Your task to perform on an android device: Search for panasonic triple a on target.com, select the first entry, add it to the cart, then select checkout. Image 0: 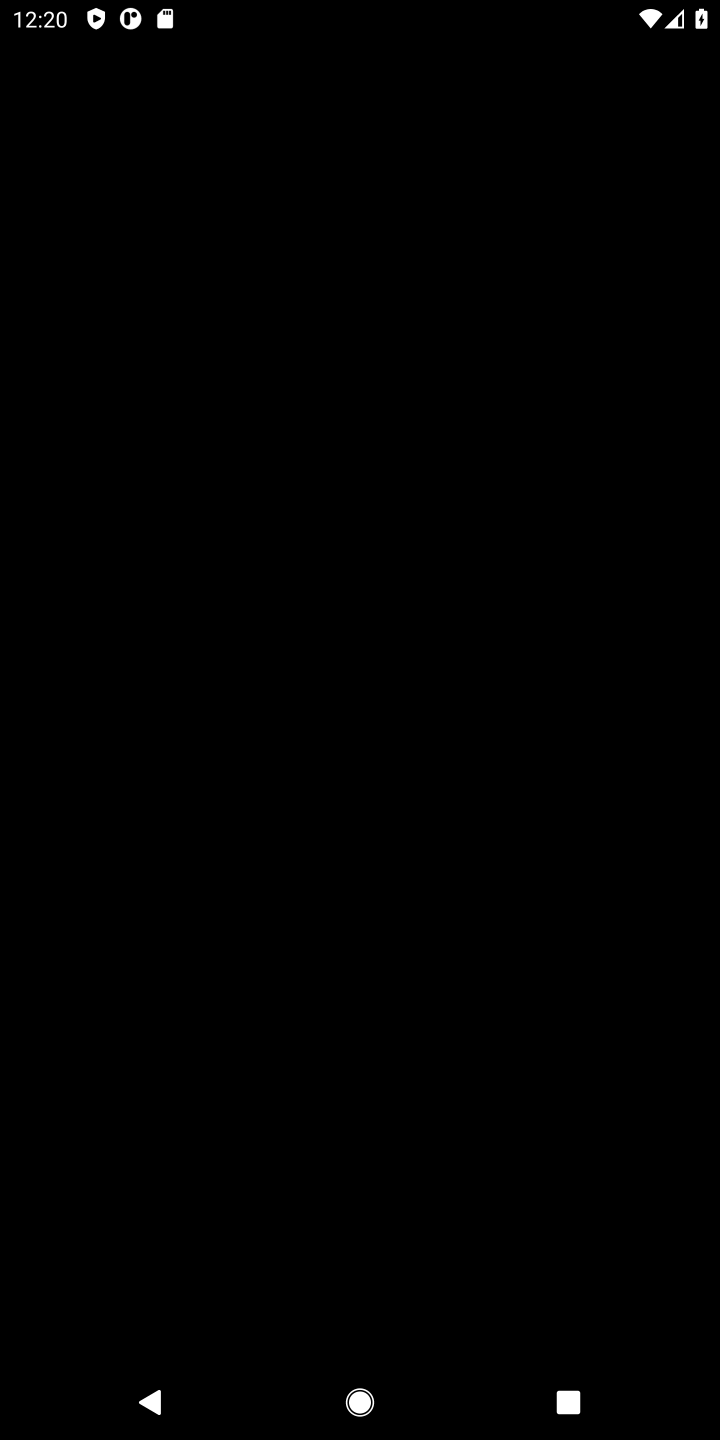
Step 0: press home button
Your task to perform on an android device: Search for panasonic triple a on target.com, select the first entry, add it to the cart, then select checkout. Image 1: 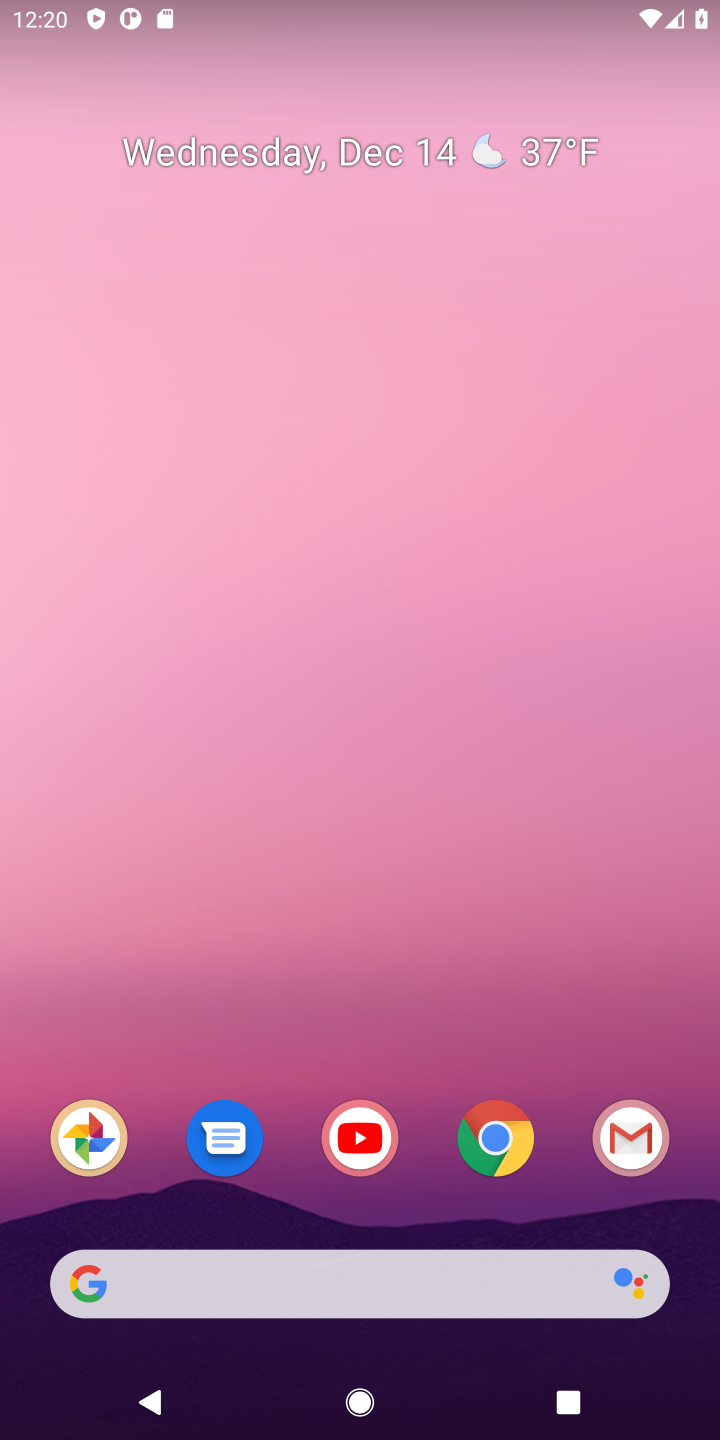
Step 1: click (513, 1142)
Your task to perform on an android device: Search for panasonic triple a on target.com, select the first entry, add it to the cart, then select checkout. Image 2: 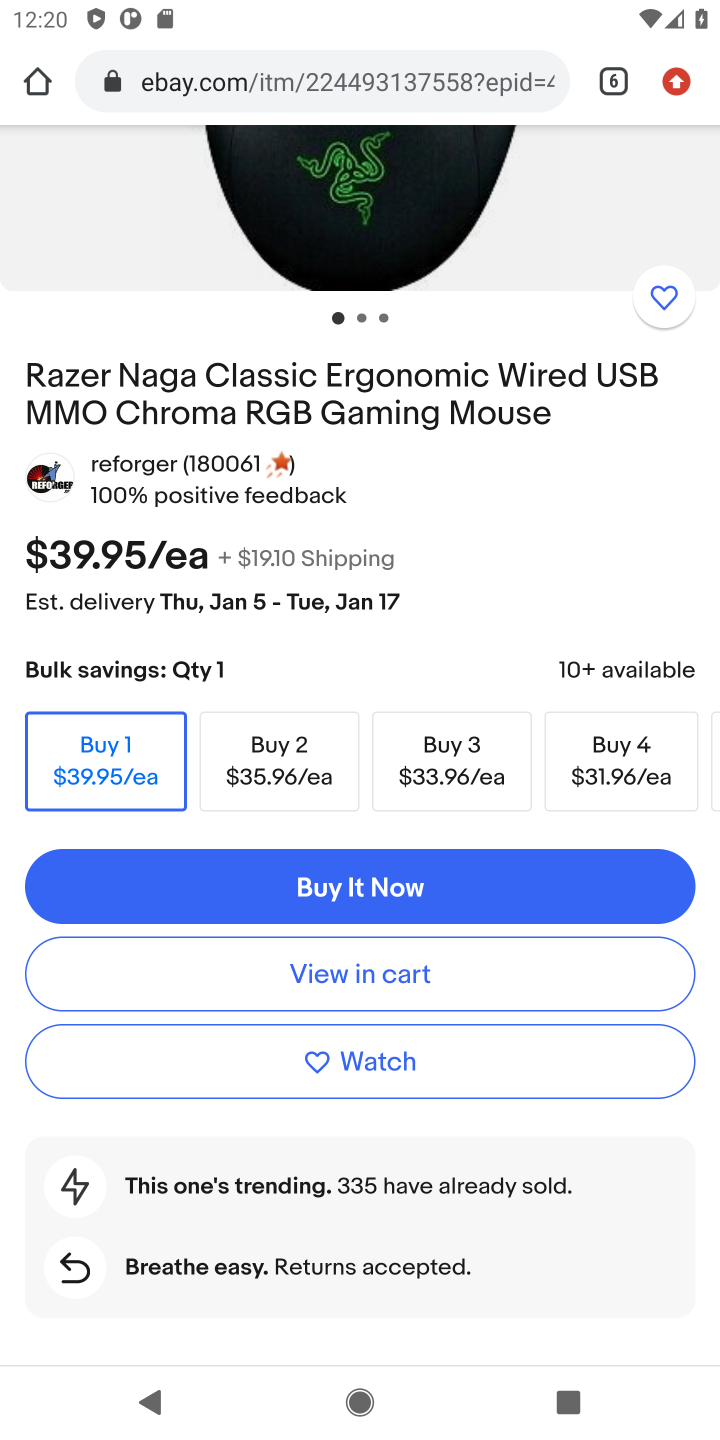
Step 2: click (620, 82)
Your task to perform on an android device: Search for panasonic triple a on target.com, select the first entry, add it to the cart, then select checkout. Image 3: 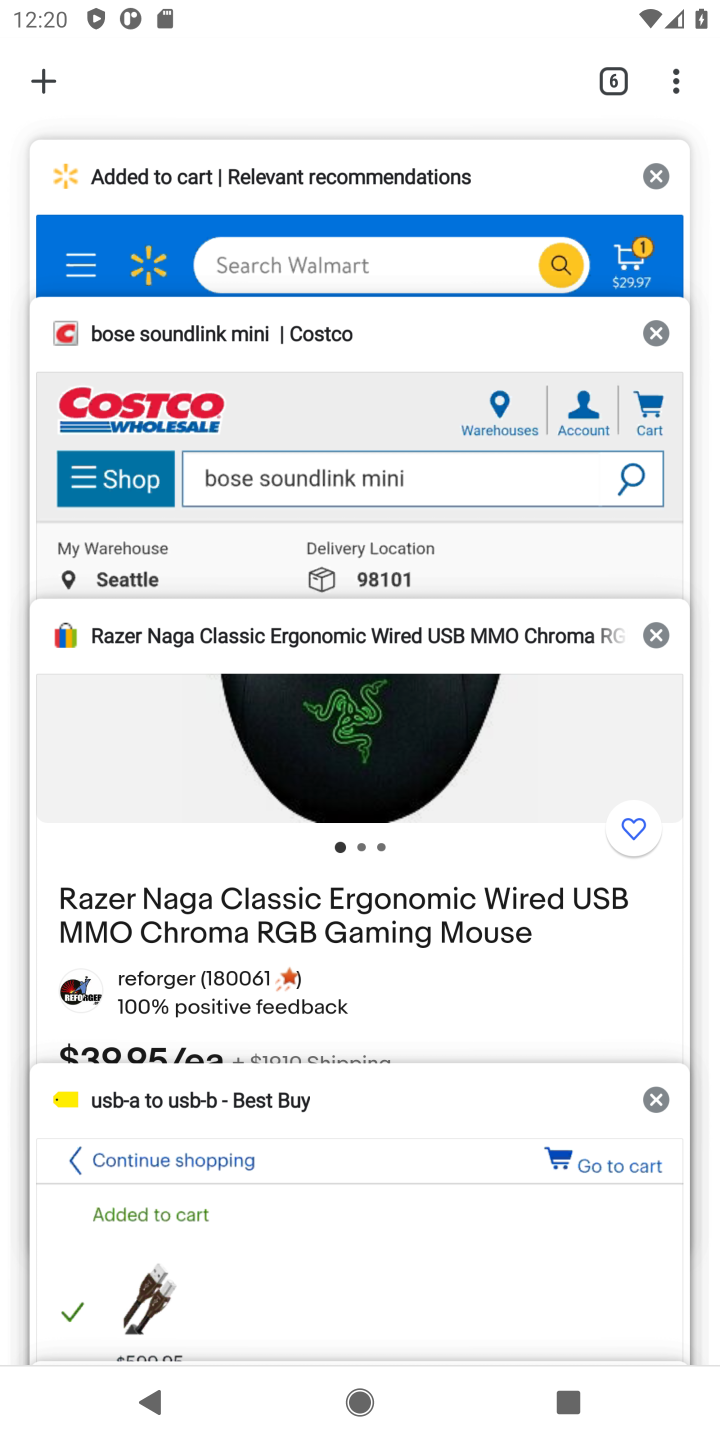
Step 3: drag from (262, 1187) to (304, 666)
Your task to perform on an android device: Search for panasonic triple a on target.com, select the first entry, add it to the cart, then select checkout. Image 4: 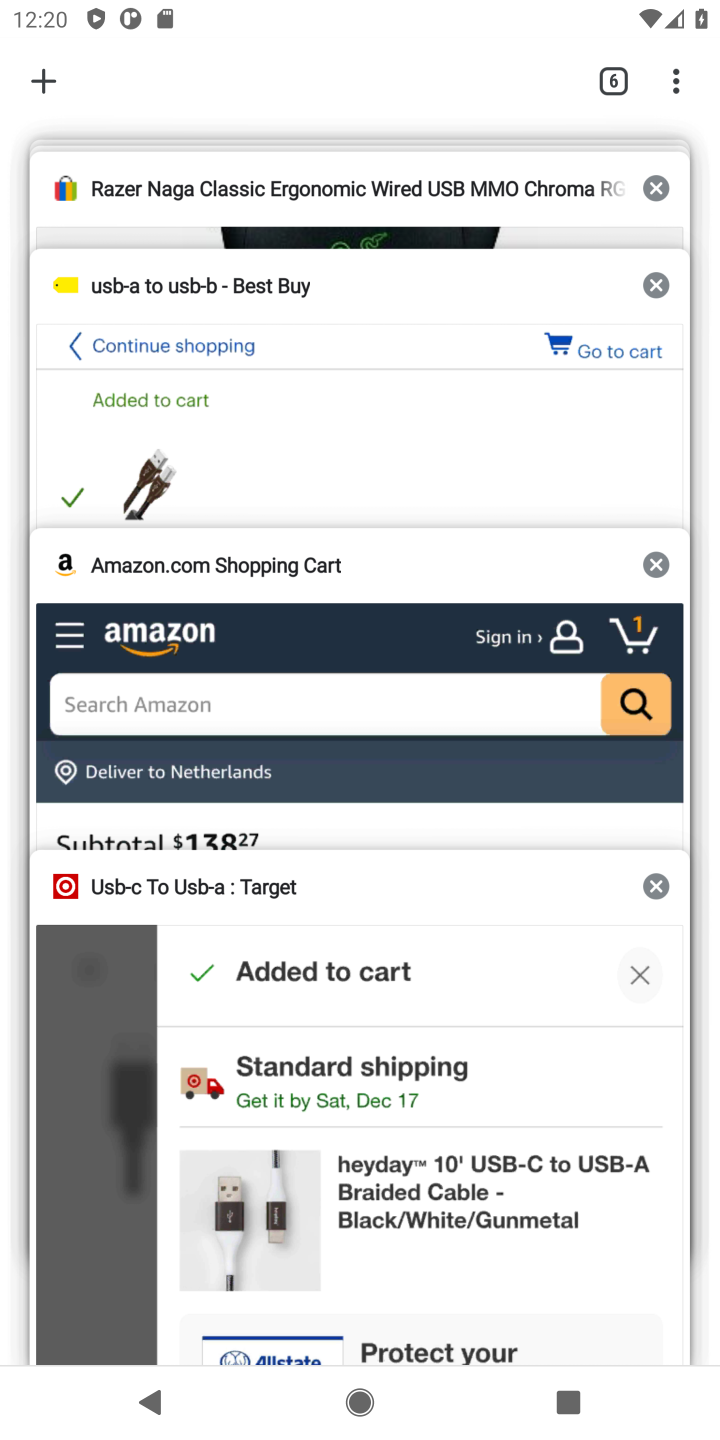
Step 4: click (226, 926)
Your task to perform on an android device: Search for panasonic triple a on target.com, select the first entry, add it to the cart, then select checkout. Image 5: 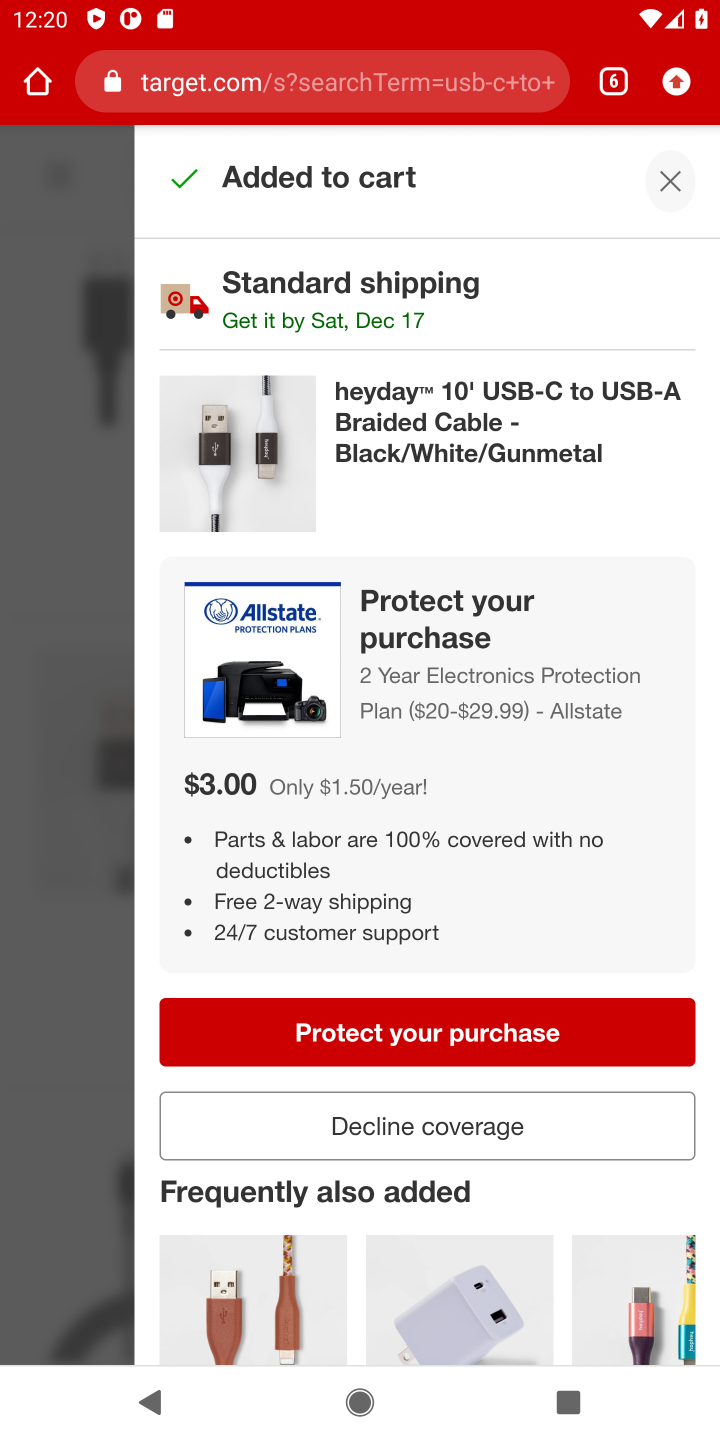
Step 5: click (649, 185)
Your task to perform on an android device: Search for panasonic triple a on target.com, select the first entry, add it to the cart, then select checkout. Image 6: 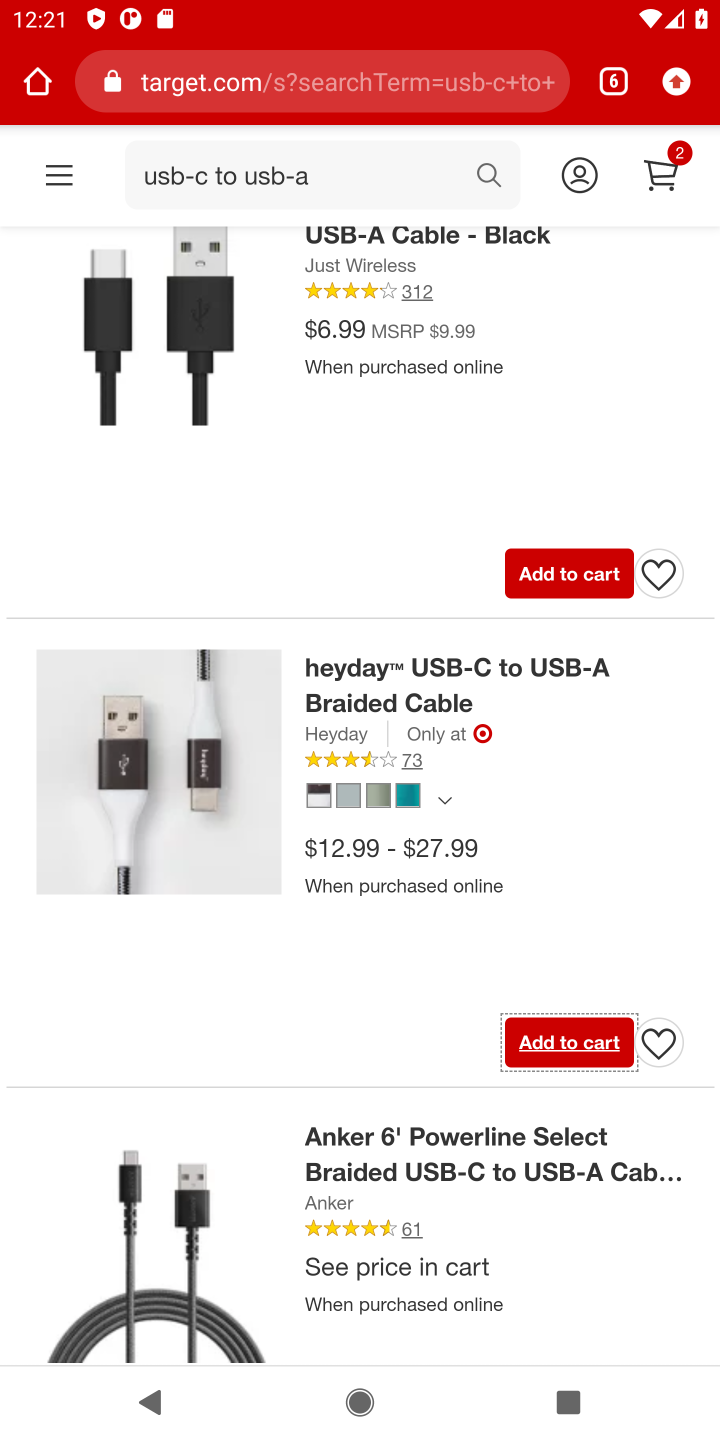
Step 6: click (409, 181)
Your task to perform on an android device: Search for panasonic triple a on target.com, select the first entry, add it to the cart, then select checkout. Image 7: 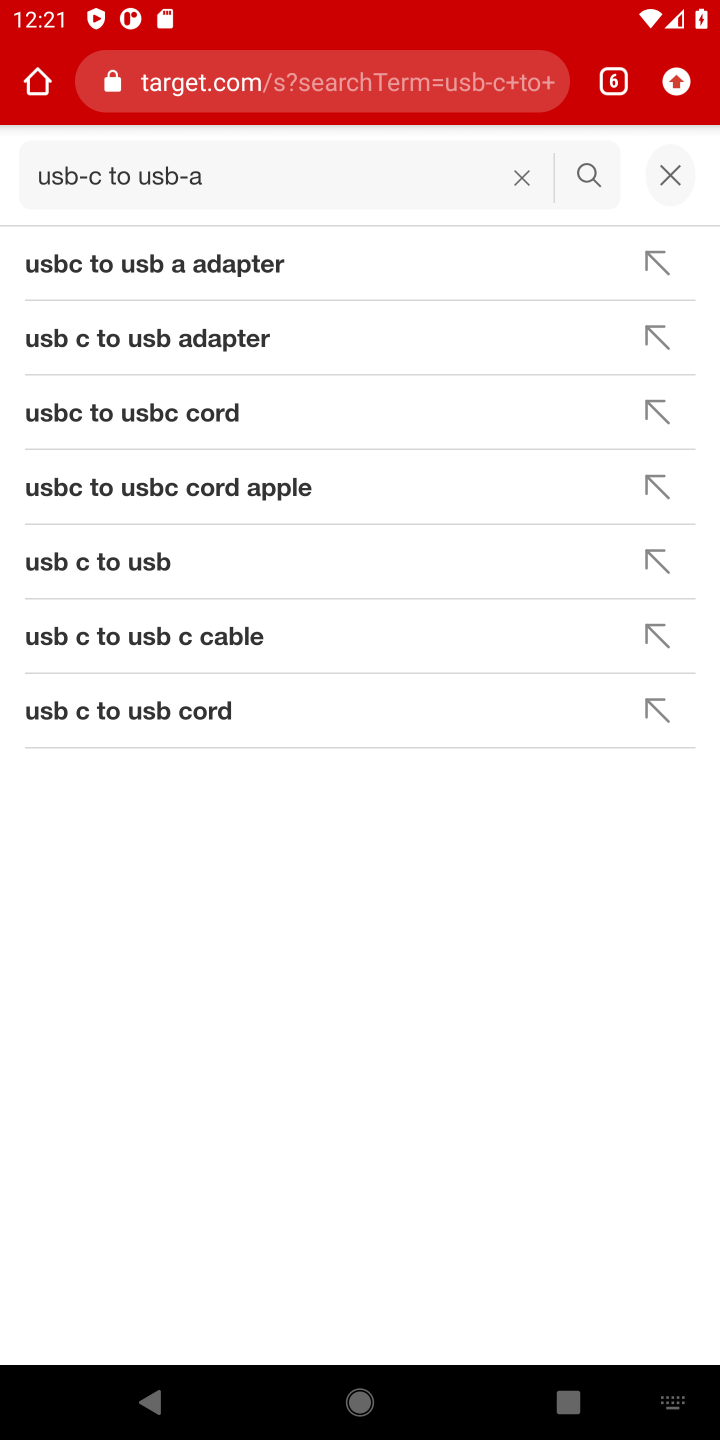
Step 7: click (519, 177)
Your task to perform on an android device: Search for panasonic triple a on target.com, select the first entry, add it to the cart, then select checkout. Image 8: 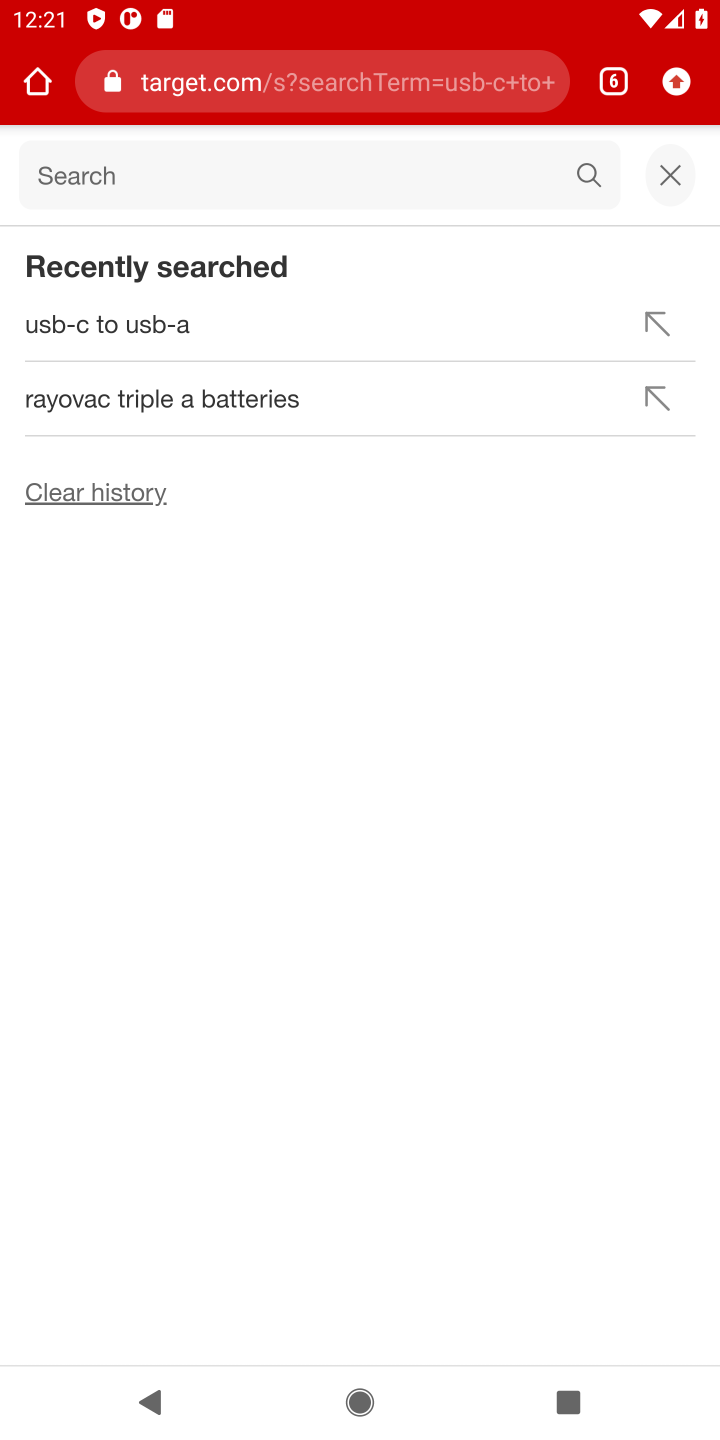
Step 8: type "panasonic triple a batteries"
Your task to perform on an android device: Search for panasonic triple a on target.com, select the first entry, add it to the cart, then select checkout. Image 9: 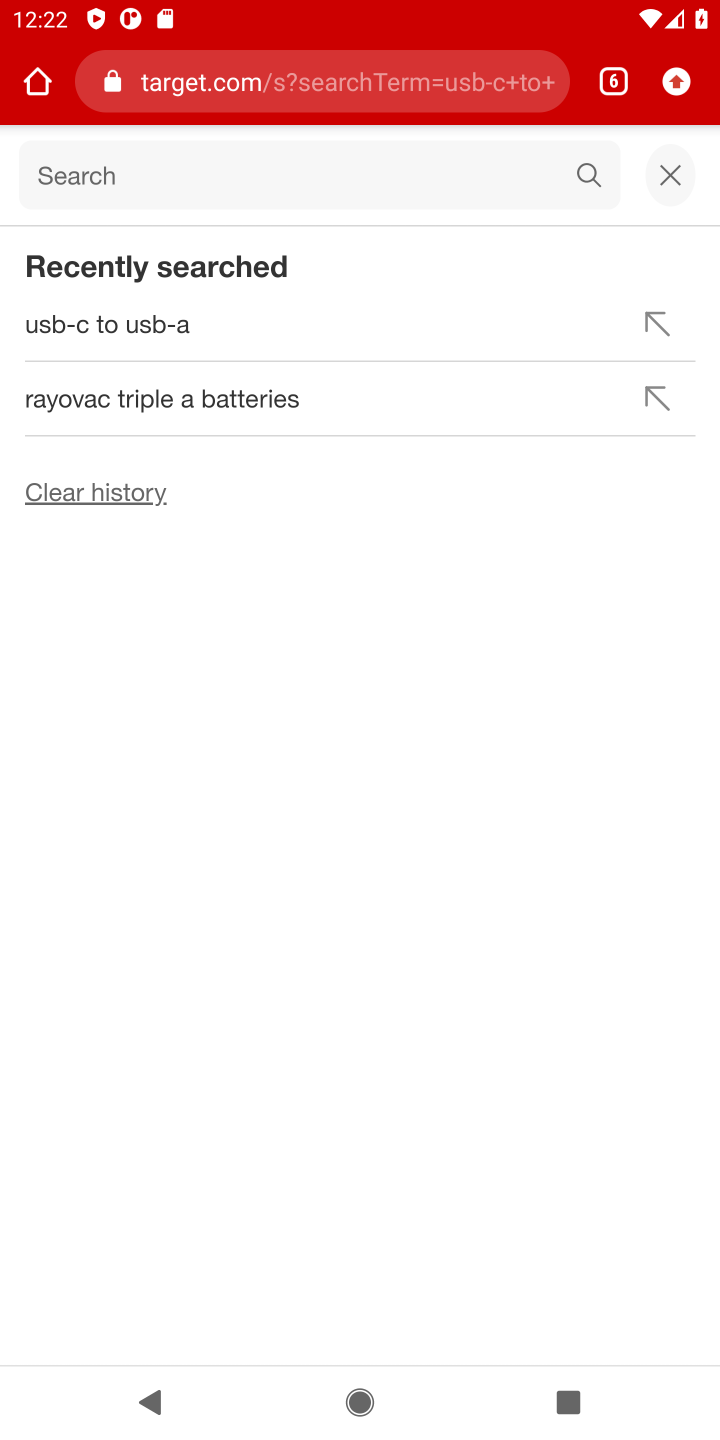
Step 9: click (159, 172)
Your task to perform on an android device: Search for panasonic triple a on target.com, select the first entry, add it to the cart, then select checkout. Image 10: 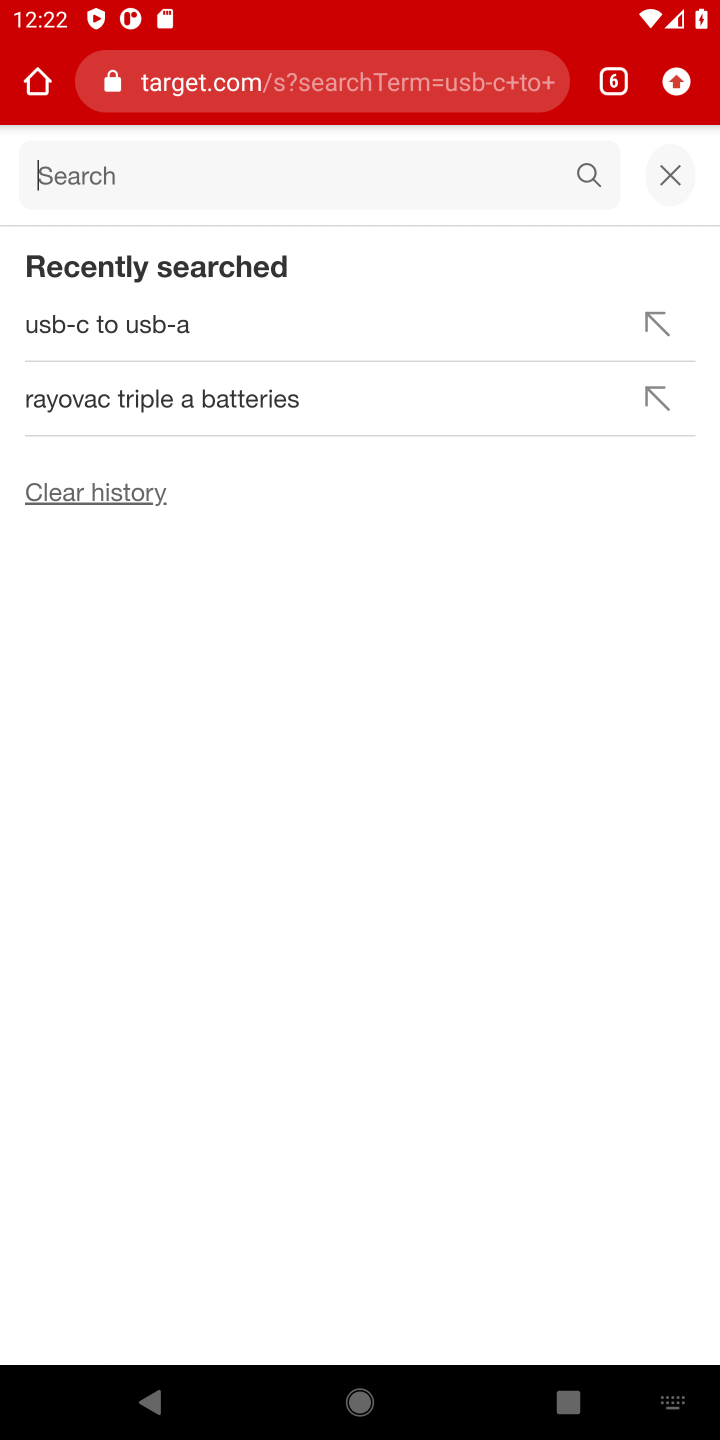
Step 10: type "panasonic triple a"
Your task to perform on an android device: Search for panasonic triple a on target.com, select the first entry, add it to the cart, then select checkout. Image 11: 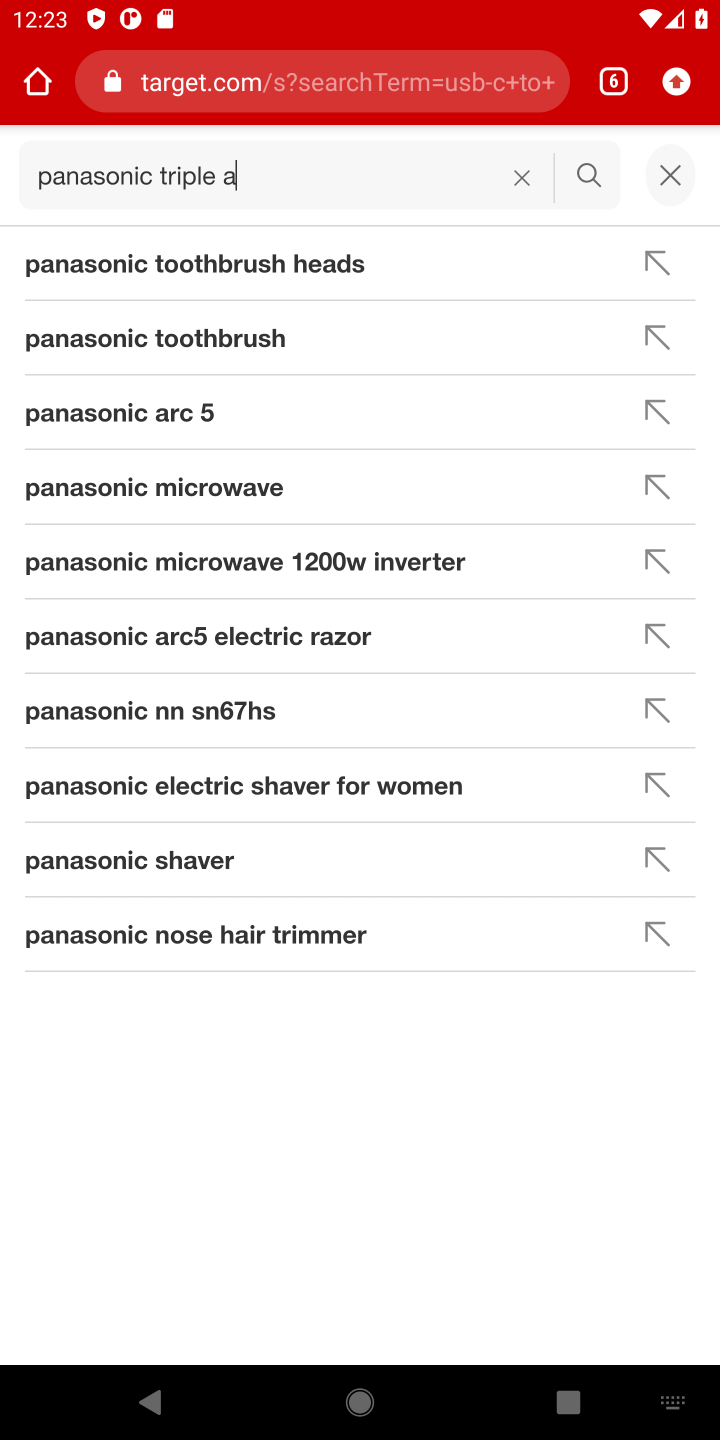
Step 11: click (580, 164)
Your task to perform on an android device: Search for panasonic triple a on target.com, select the first entry, add it to the cart, then select checkout. Image 12: 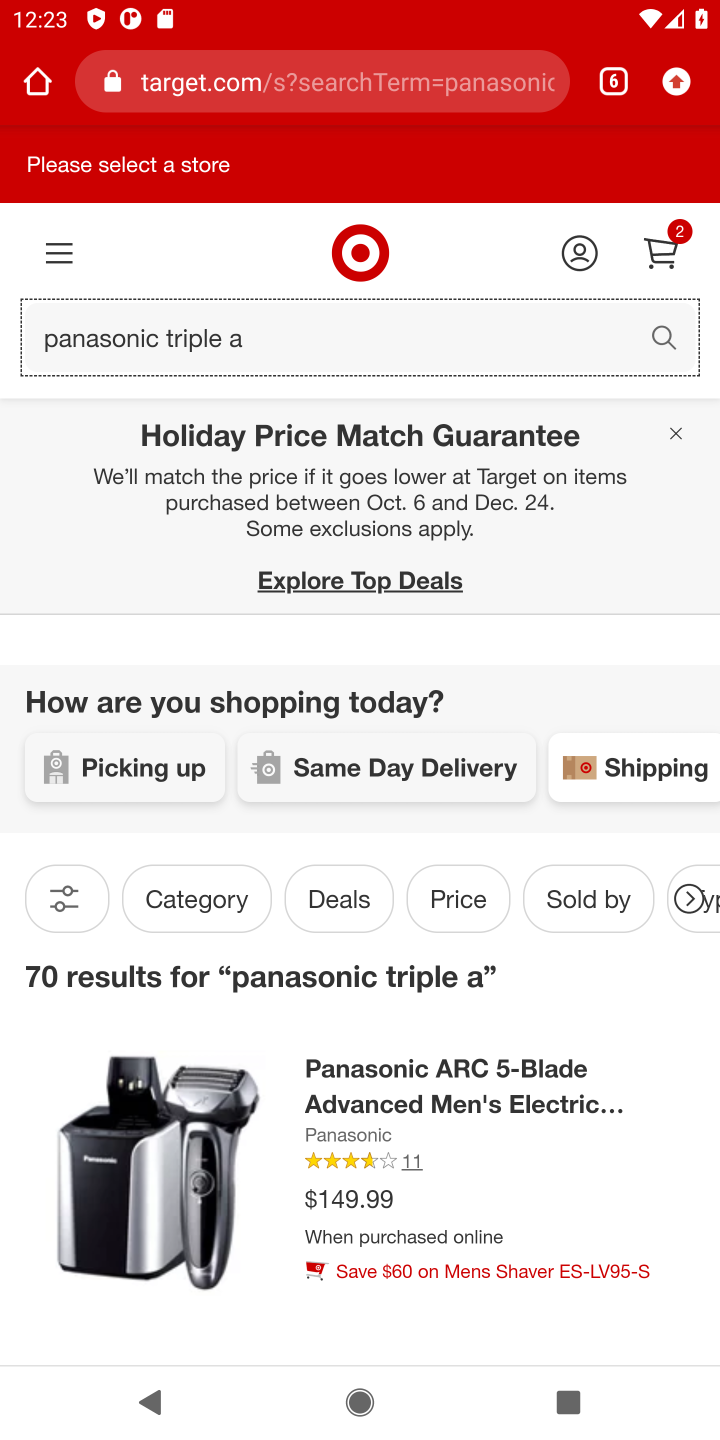
Step 12: task complete